Your task to perform on an android device: add a contact in the contacts app Image 0: 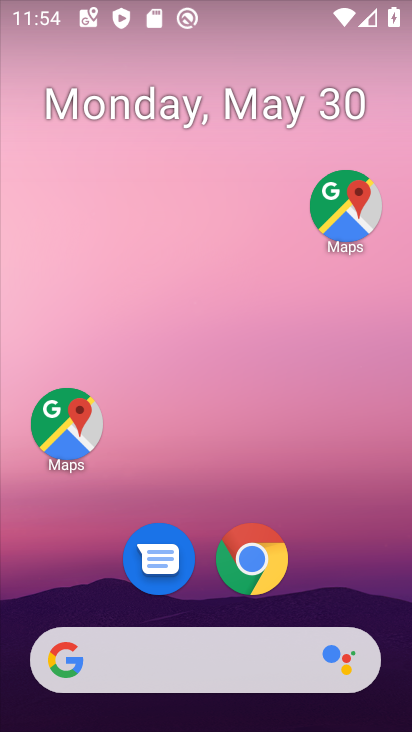
Step 0: drag from (361, 566) to (287, 177)
Your task to perform on an android device: add a contact in the contacts app Image 1: 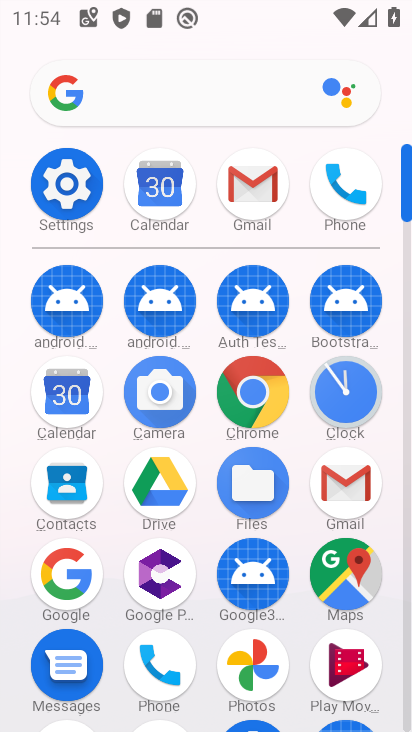
Step 1: click (58, 490)
Your task to perform on an android device: add a contact in the contacts app Image 2: 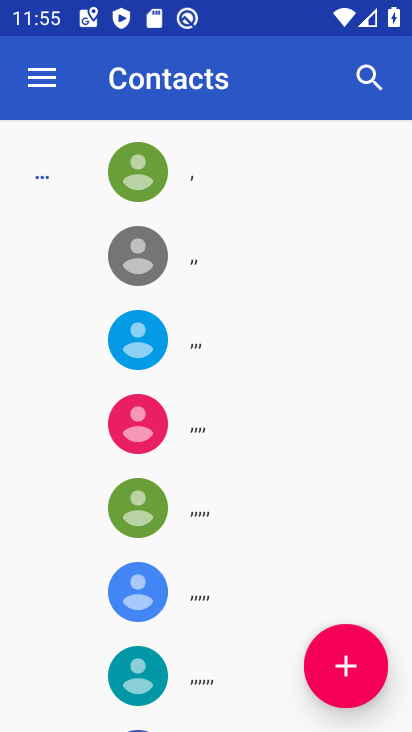
Step 2: click (339, 672)
Your task to perform on an android device: add a contact in the contacts app Image 3: 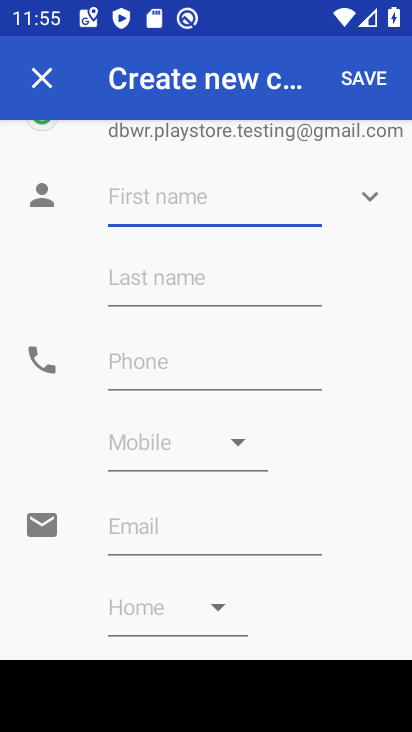
Step 3: type "salman"
Your task to perform on an android device: add a contact in the contacts app Image 4: 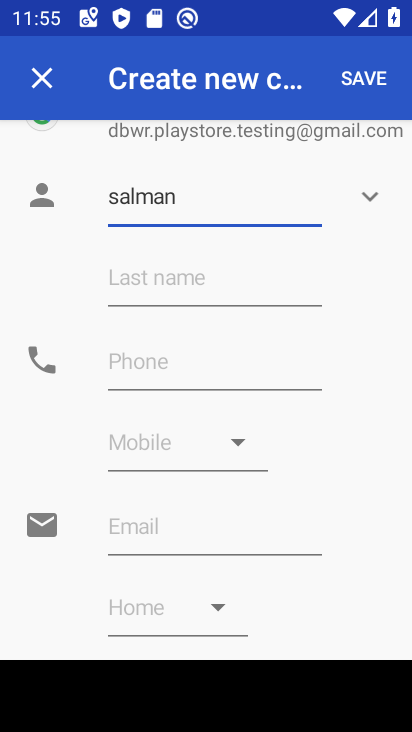
Step 4: click (367, 80)
Your task to perform on an android device: add a contact in the contacts app Image 5: 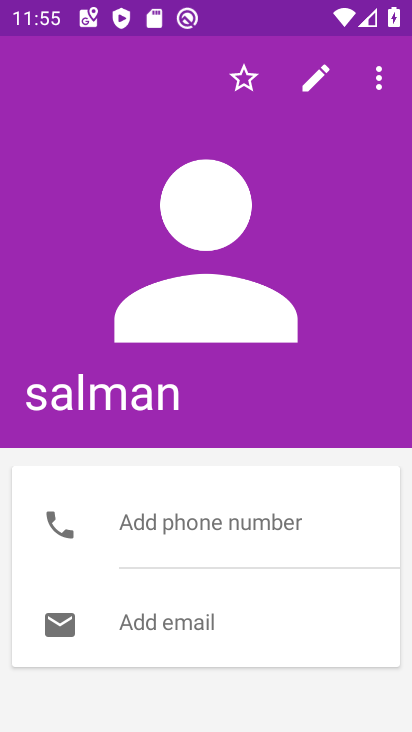
Step 5: task complete